Your task to perform on an android device: change notifications settings Image 0: 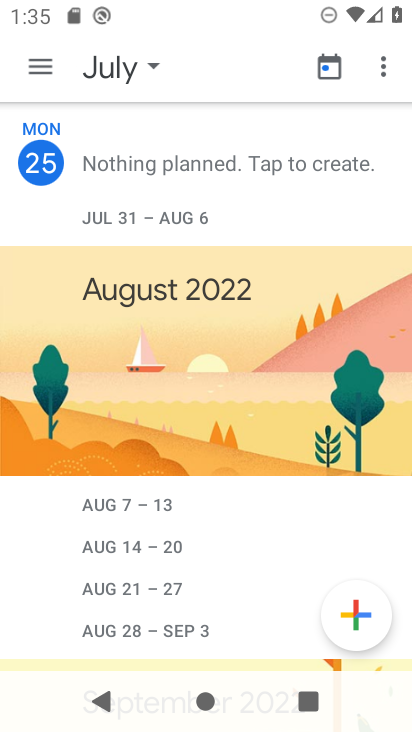
Step 0: press home button
Your task to perform on an android device: change notifications settings Image 1: 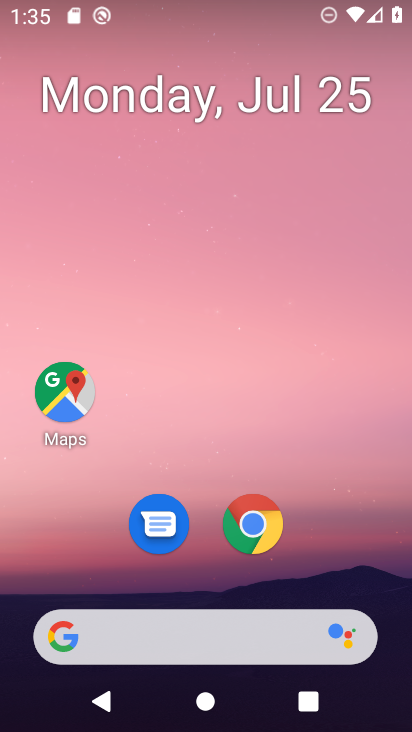
Step 1: drag from (194, 633) to (339, 54)
Your task to perform on an android device: change notifications settings Image 2: 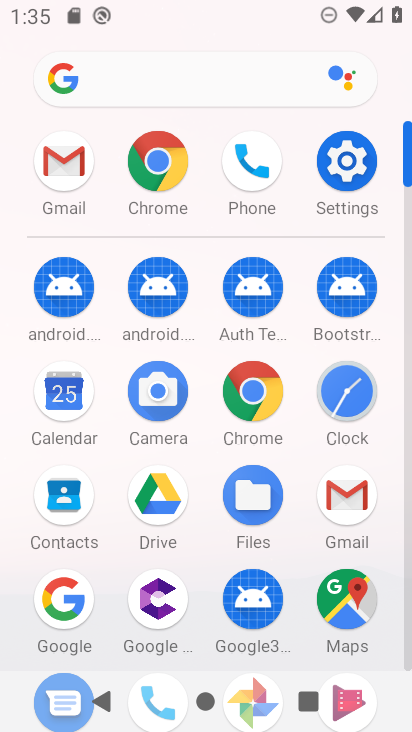
Step 2: click (352, 162)
Your task to perform on an android device: change notifications settings Image 3: 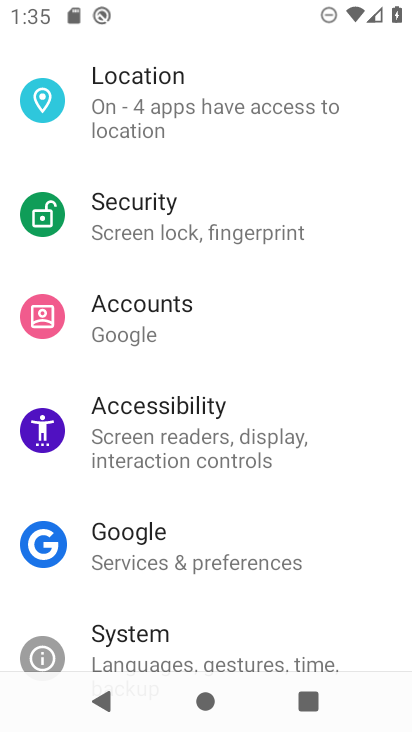
Step 3: drag from (337, 154) to (266, 613)
Your task to perform on an android device: change notifications settings Image 4: 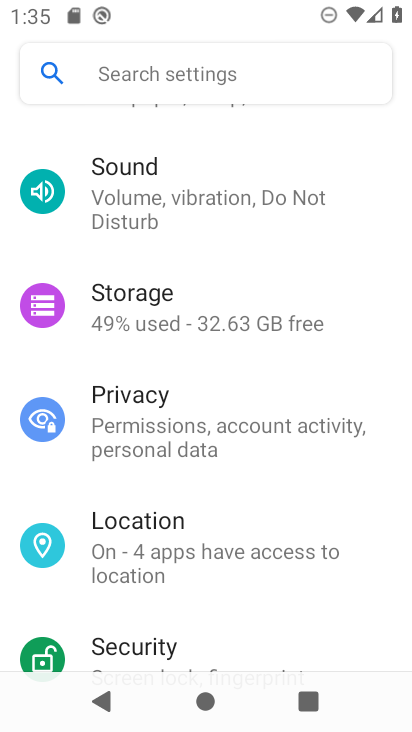
Step 4: drag from (277, 275) to (226, 554)
Your task to perform on an android device: change notifications settings Image 5: 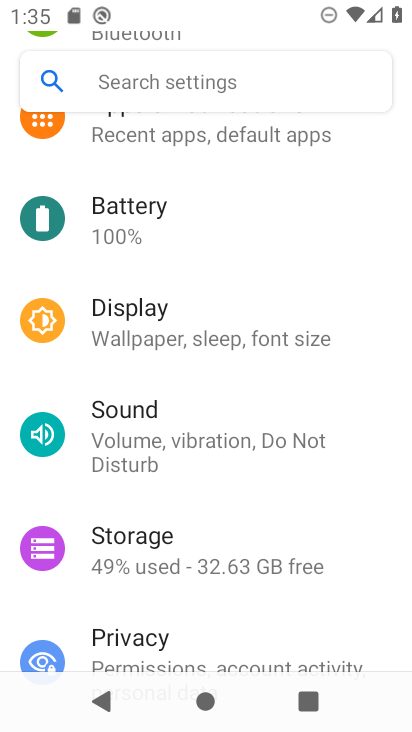
Step 5: drag from (272, 233) to (228, 528)
Your task to perform on an android device: change notifications settings Image 6: 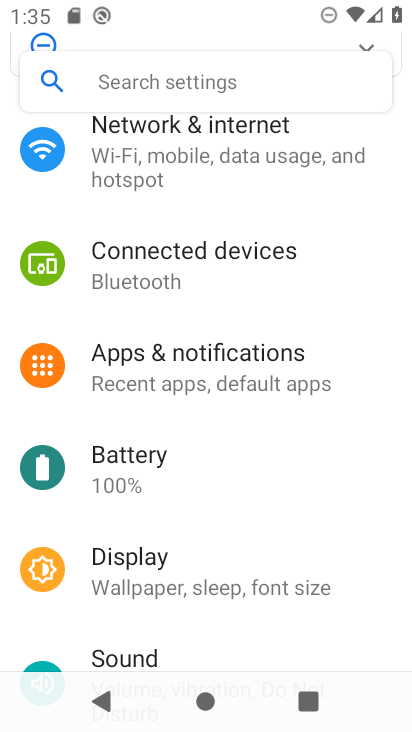
Step 6: click (212, 356)
Your task to perform on an android device: change notifications settings Image 7: 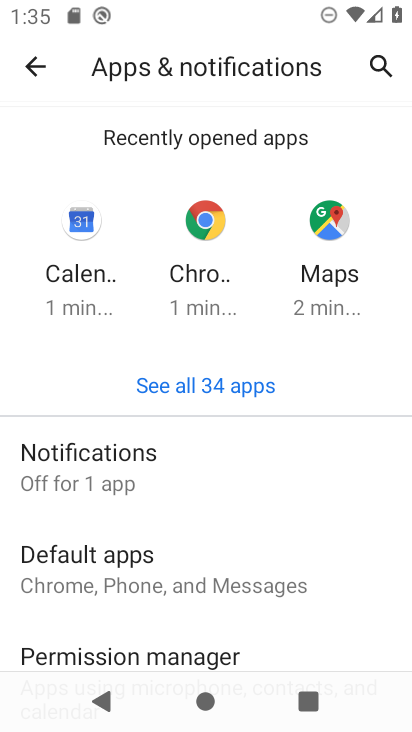
Step 7: click (120, 467)
Your task to perform on an android device: change notifications settings Image 8: 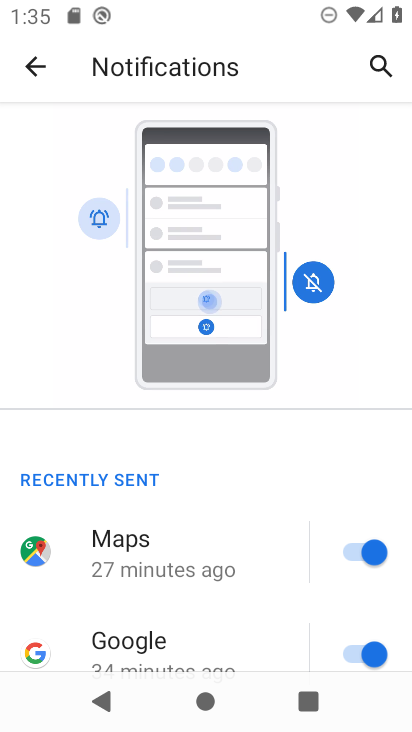
Step 8: drag from (264, 597) to (350, 301)
Your task to perform on an android device: change notifications settings Image 9: 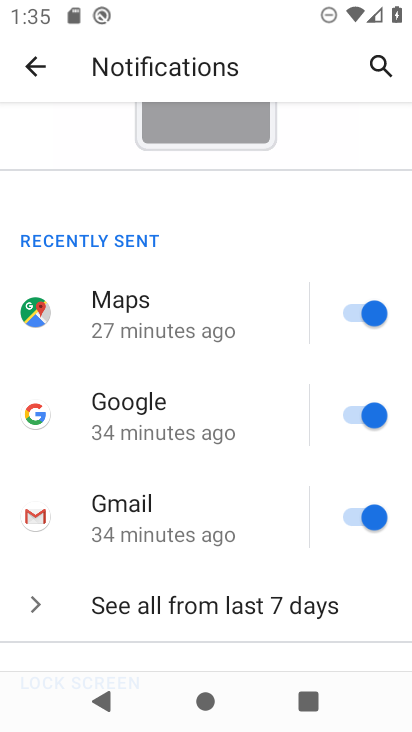
Step 9: click (359, 411)
Your task to perform on an android device: change notifications settings Image 10: 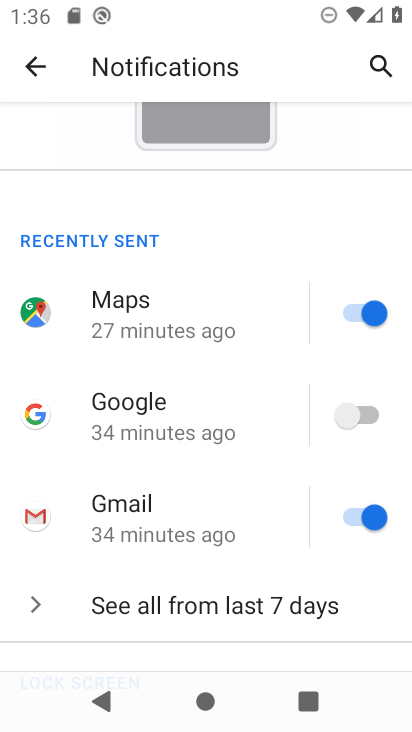
Step 10: task complete